Your task to perform on an android device: Go to display settings Image 0: 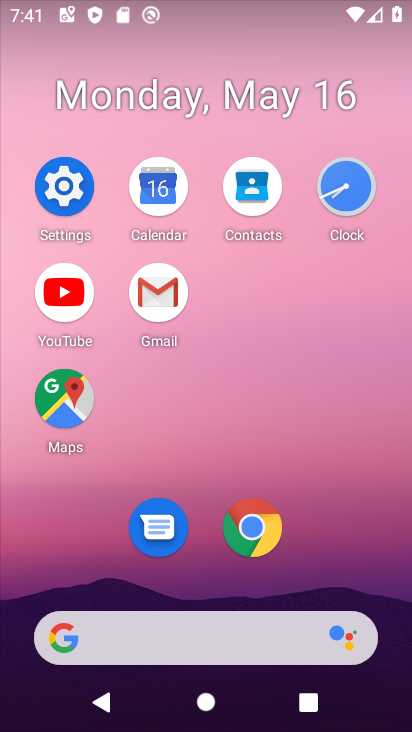
Step 0: click (45, 197)
Your task to perform on an android device: Go to display settings Image 1: 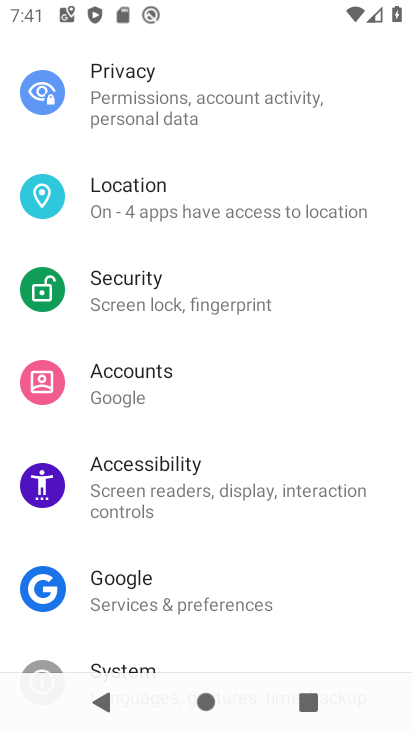
Step 1: drag from (255, 176) to (256, 485)
Your task to perform on an android device: Go to display settings Image 2: 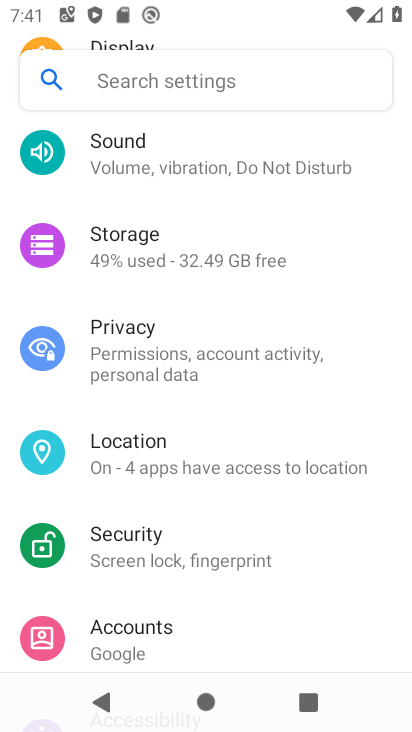
Step 2: drag from (242, 218) to (254, 520)
Your task to perform on an android device: Go to display settings Image 3: 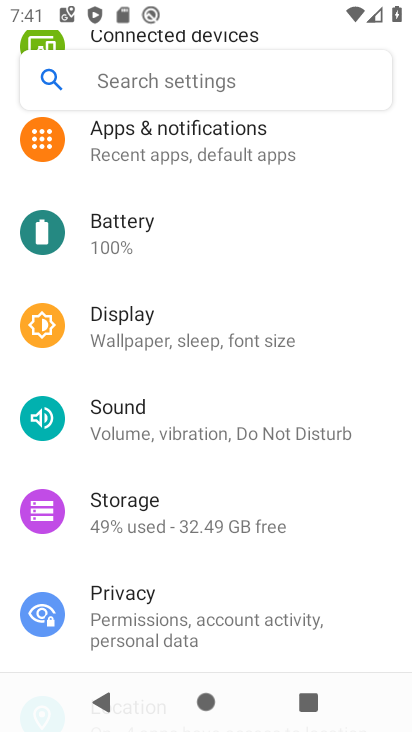
Step 3: click (226, 315)
Your task to perform on an android device: Go to display settings Image 4: 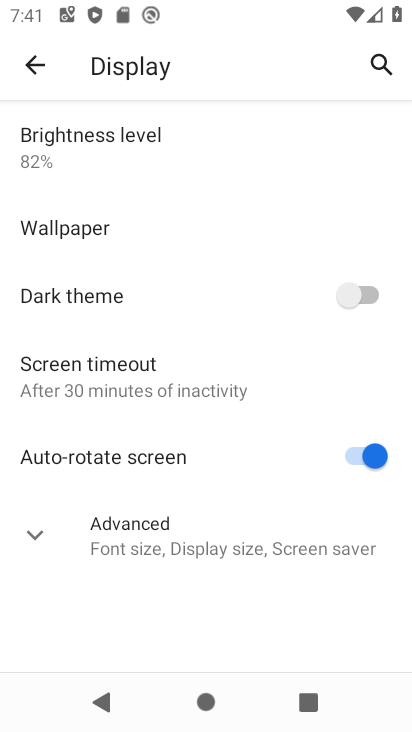
Step 4: task complete